Your task to perform on an android device: turn off javascript in the chrome app Image 0: 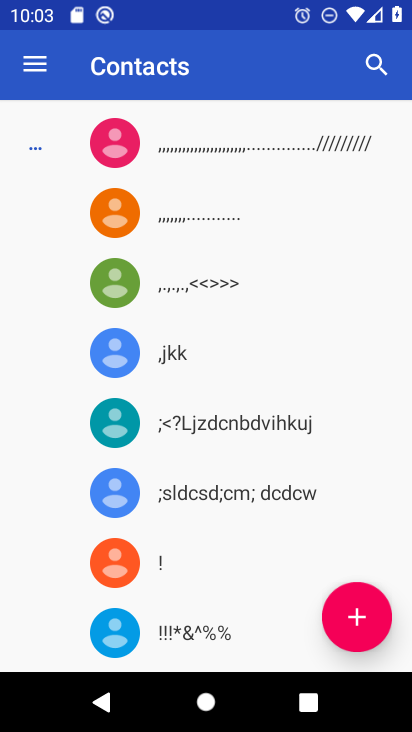
Step 0: press home button
Your task to perform on an android device: turn off javascript in the chrome app Image 1: 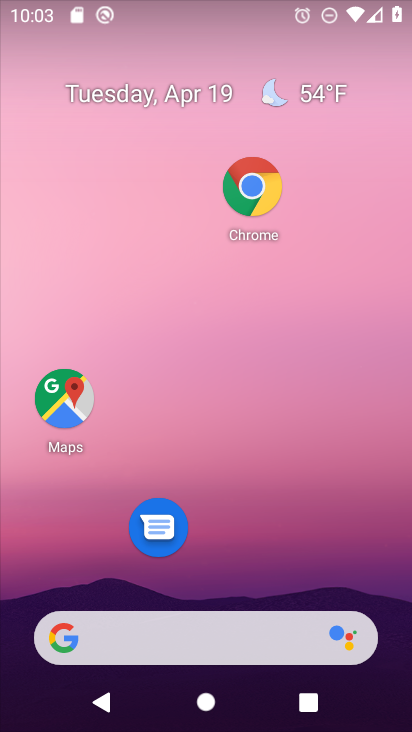
Step 1: drag from (202, 424) to (227, 251)
Your task to perform on an android device: turn off javascript in the chrome app Image 2: 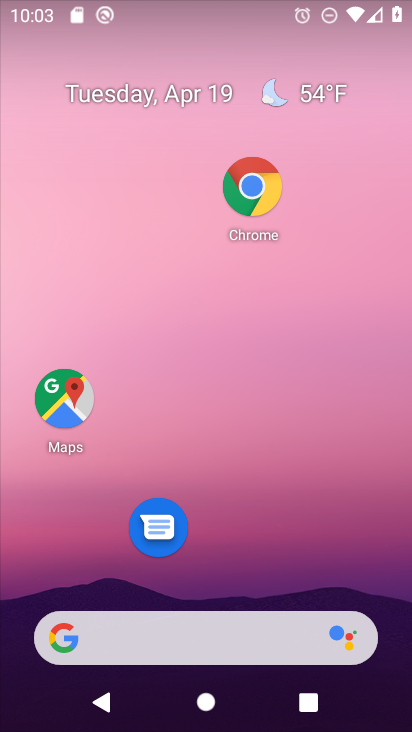
Step 2: drag from (248, 543) to (276, 299)
Your task to perform on an android device: turn off javascript in the chrome app Image 3: 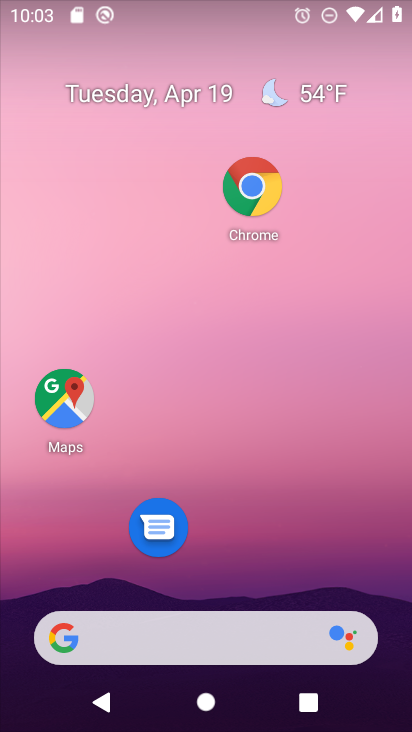
Step 3: drag from (249, 572) to (270, 267)
Your task to perform on an android device: turn off javascript in the chrome app Image 4: 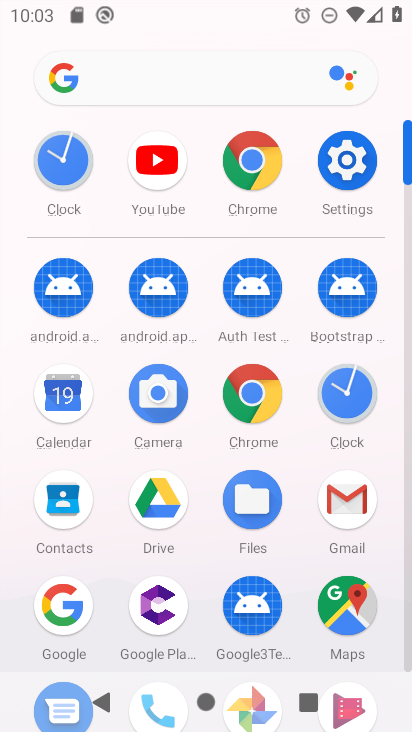
Step 4: click (249, 386)
Your task to perform on an android device: turn off javascript in the chrome app Image 5: 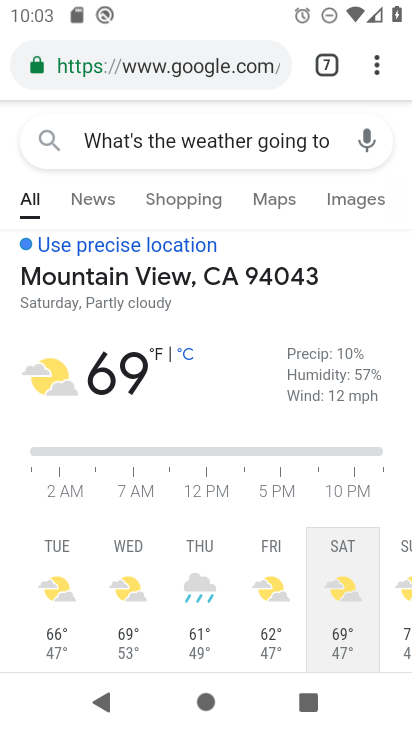
Step 5: click (380, 57)
Your task to perform on an android device: turn off javascript in the chrome app Image 6: 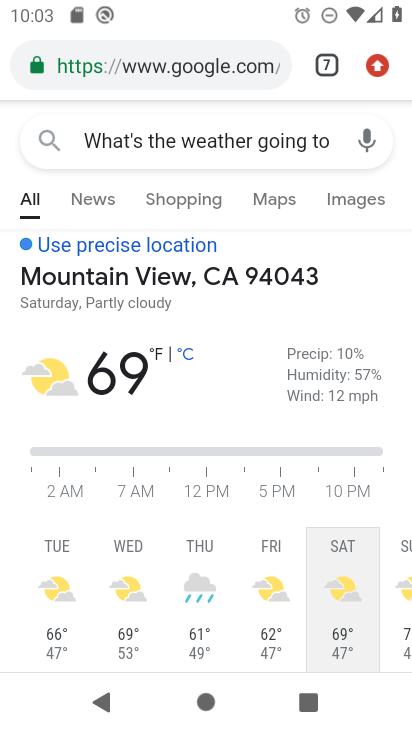
Step 6: click (380, 57)
Your task to perform on an android device: turn off javascript in the chrome app Image 7: 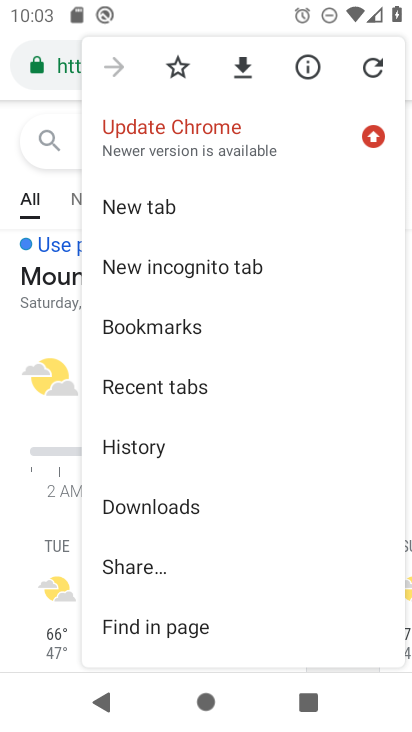
Step 7: drag from (215, 540) to (286, 331)
Your task to perform on an android device: turn off javascript in the chrome app Image 8: 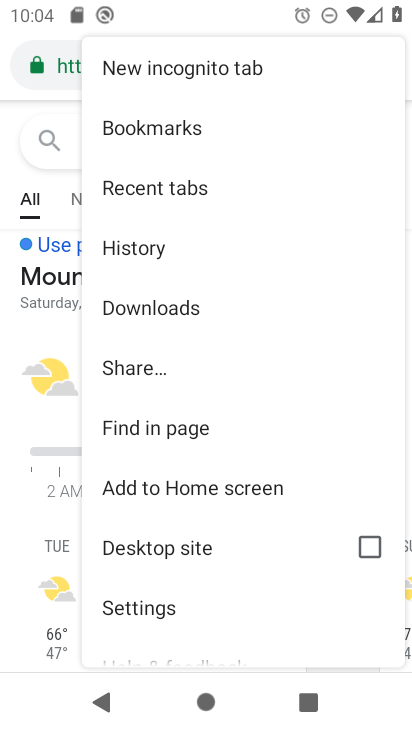
Step 8: click (205, 609)
Your task to perform on an android device: turn off javascript in the chrome app Image 9: 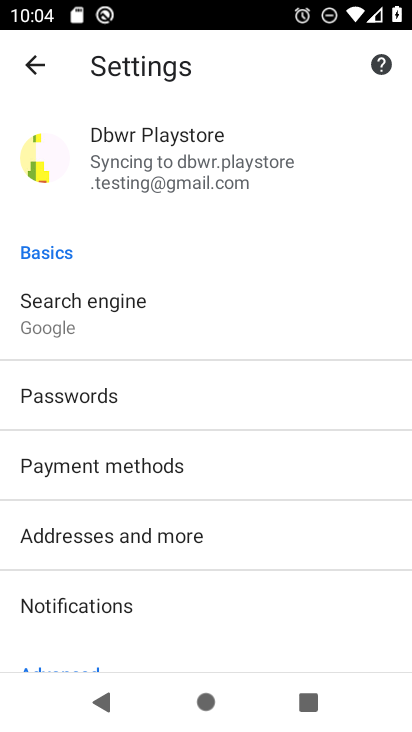
Step 9: drag from (259, 544) to (318, 172)
Your task to perform on an android device: turn off javascript in the chrome app Image 10: 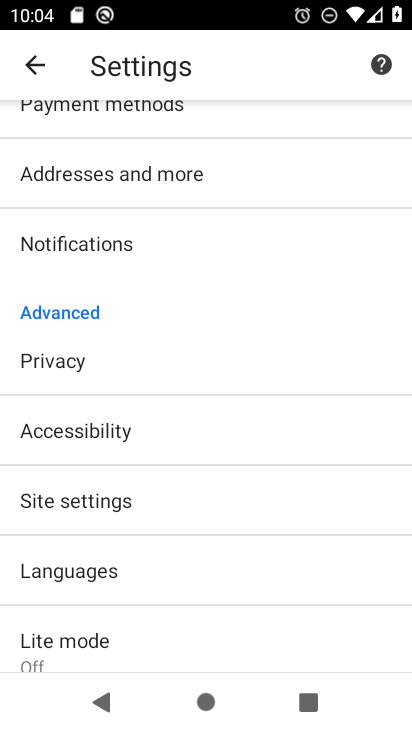
Step 10: click (253, 486)
Your task to perform on an android device: turn off javascript in the chrome app Image 11: 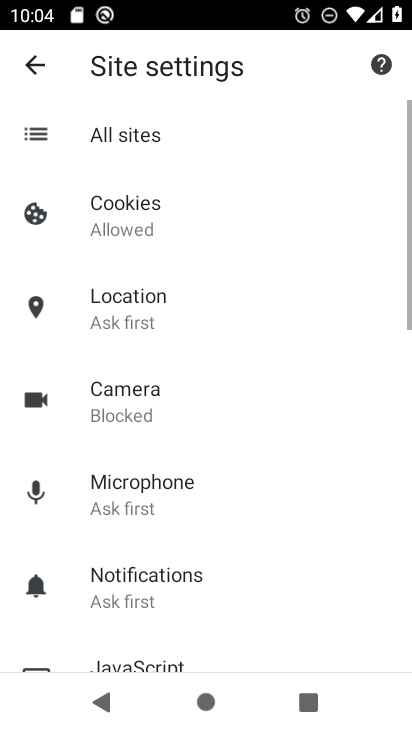
Step 11: click (253, 486)
Your task to perform on an android device: turn off javascript in the chrome app Image 12: 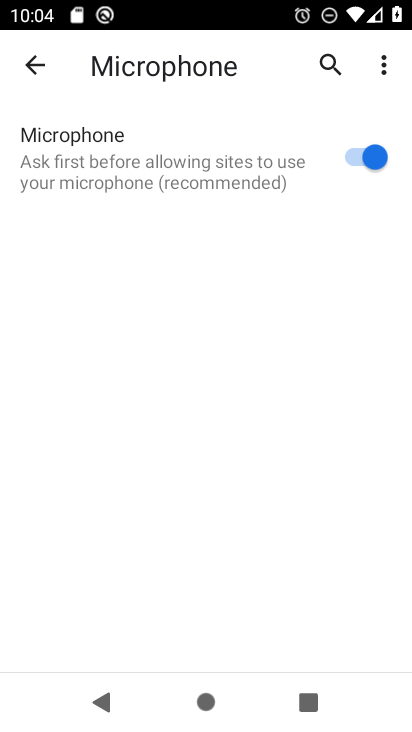
Step 12: click (42, 66)
Your task to perform on an android device: turn off javascript in the chrome app Image 13: 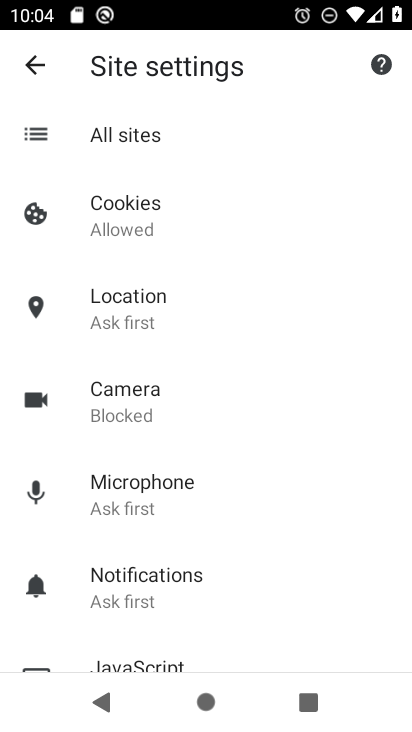
Step 13: drag from (202, 405) to (236, 250)
Your task to perform on an android device: turn off javascript in the chrome app Image 14: 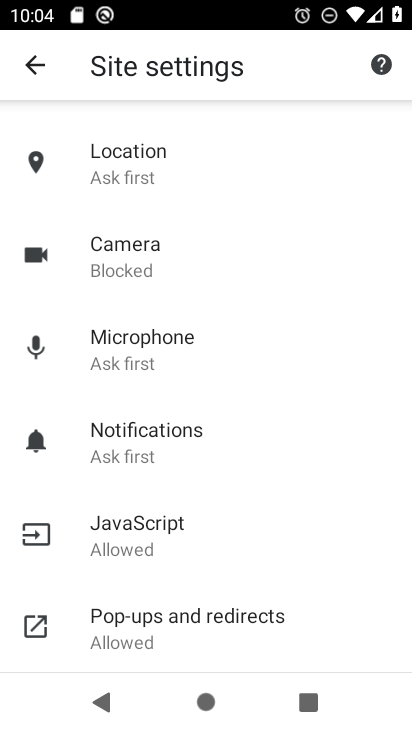
Step 14: click (194, 529)
Your task to perform on an android device: turn off javascript in the chrome app Image 15: 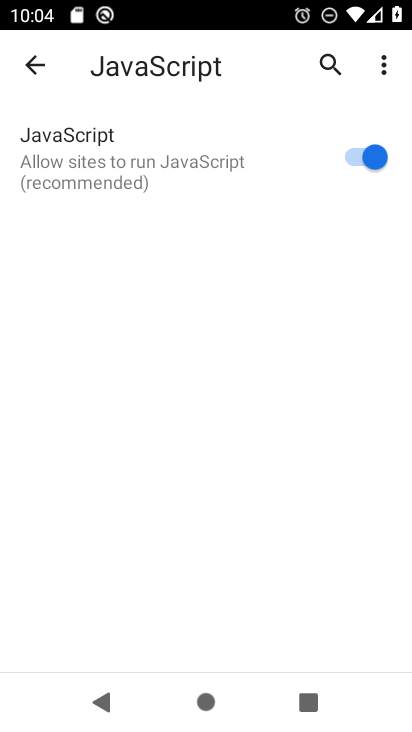
Step 15: click (357, 157)
Your task to perform on an android device: turn off javascript in the chrome app Image 16: 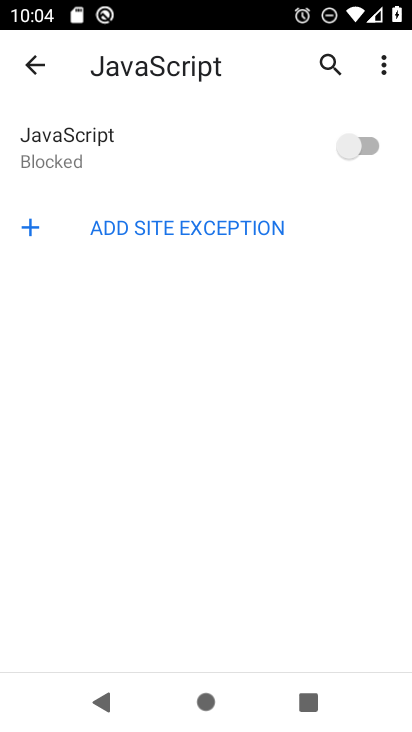
Step 16: task complete